Your task to perform on an android device: Do I have any events tomorrow? Image 0: 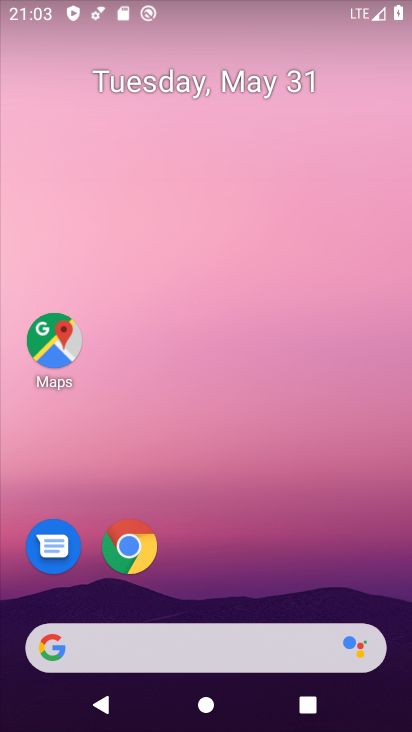
Step 0: drag from (394, 707) to (312, 94)
Your task to perform on an android device: Do I have any events tomorrow? Image 1: 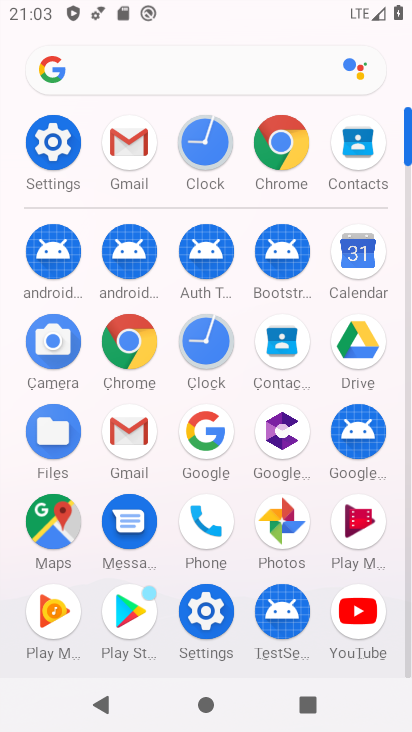
Step 1: click (378, 255)
Your task to perform on an android device: Do I have any events tomorrow? Image 2: 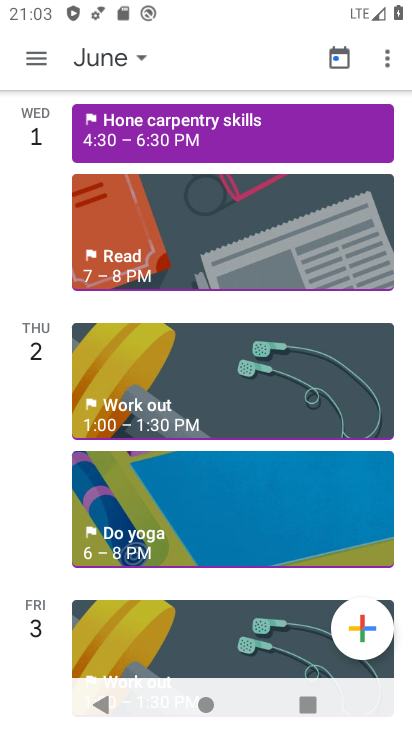
Step 2: click (38, 51)
Your task to perform on an android device: Do I have any events tomorrow? Image 3: 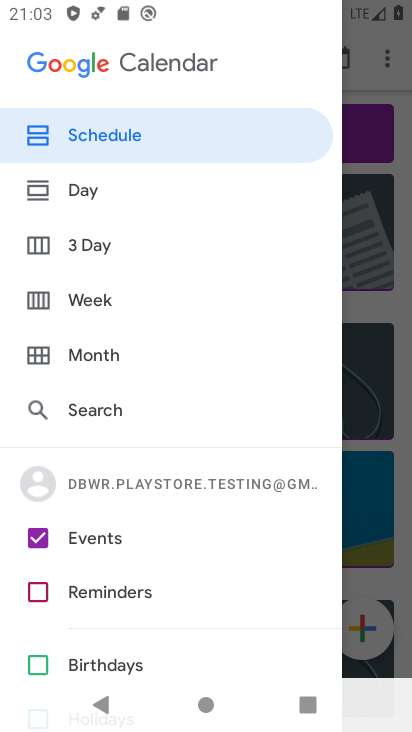
Step 3: click (81, 191)
Your task to perform on an android device: Do I have any events tomorrow? Image 4: 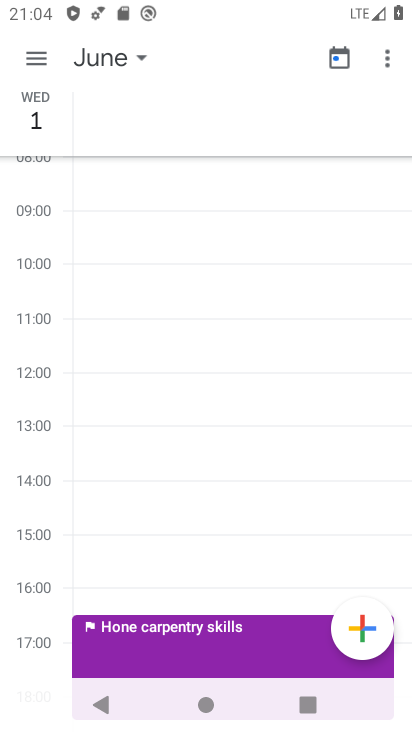
Step 4: click (133, 57)
Your task to perform on an android device: Do I have any events tomorrow? Image 5: 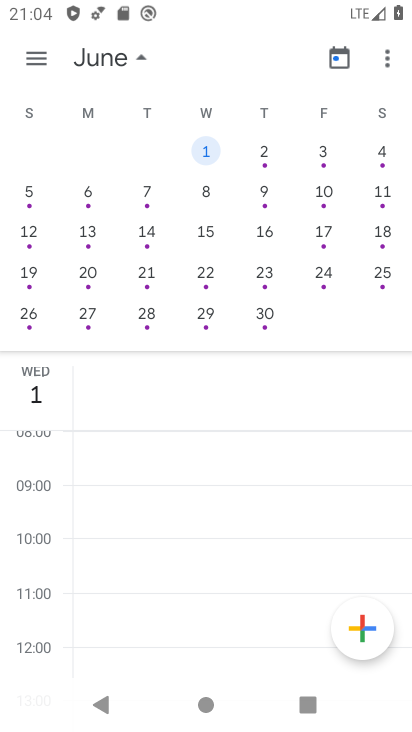
Step 5: click (196, 151)
Your task to perform on an android device: Do I have any events tomorrow? Image 6: 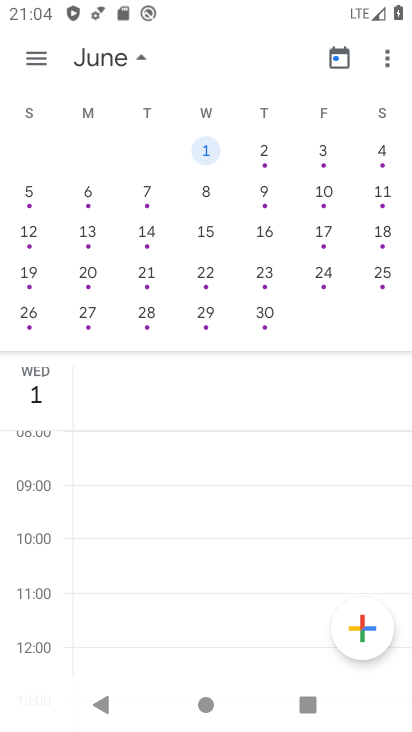
Step 6: click (37, 54)
Your task to perform on an android device: Do I have any events tomorrow? Image 7: 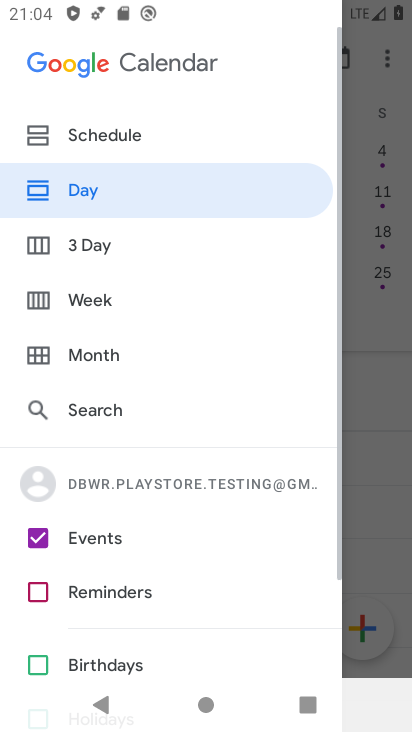
Step 7: click (79, 138)
Your task to perform on an android device: Do I have any events tomorrow? Image 8: 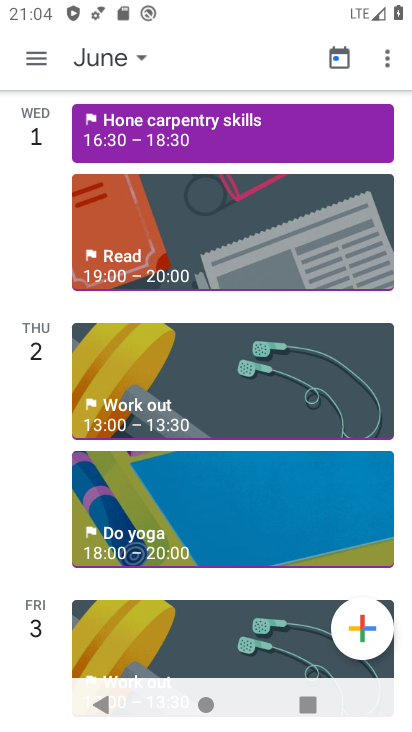
Step 8: task complete